Your task to perform on an android device: set the timer Image 0: 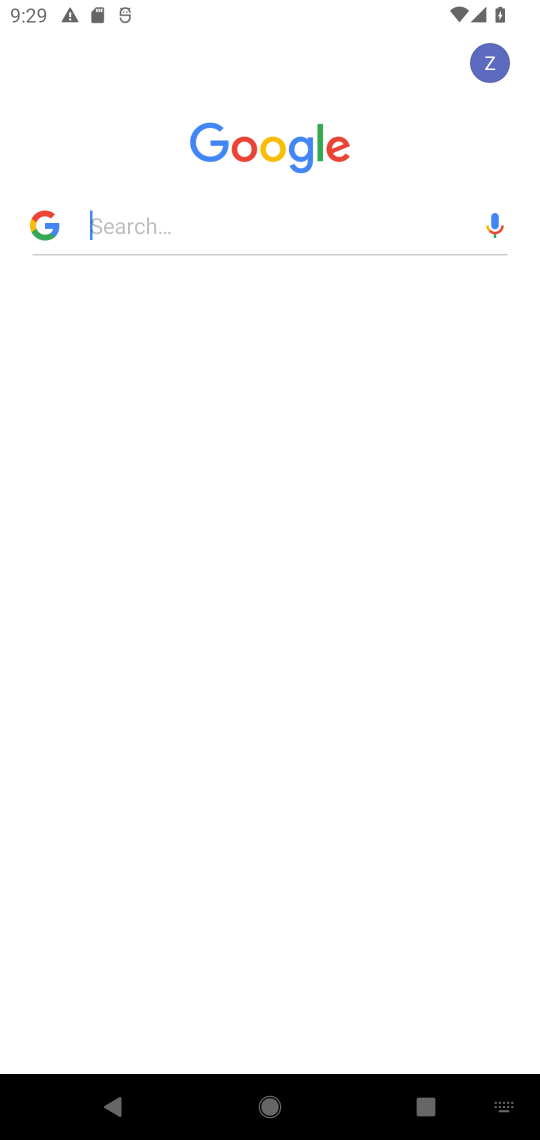
Step 0: press home button
Your task to perform on an android device: set the timer Image 1: 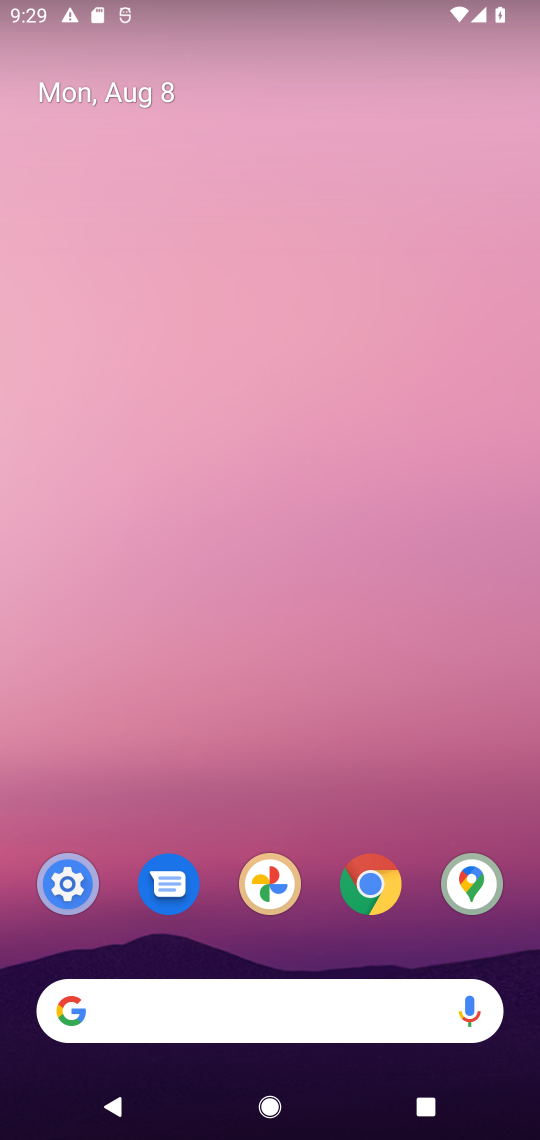
Step 1: drag from (290, 771) to (344, 108)
Your task to perform on an android device: set the timer Image 2: 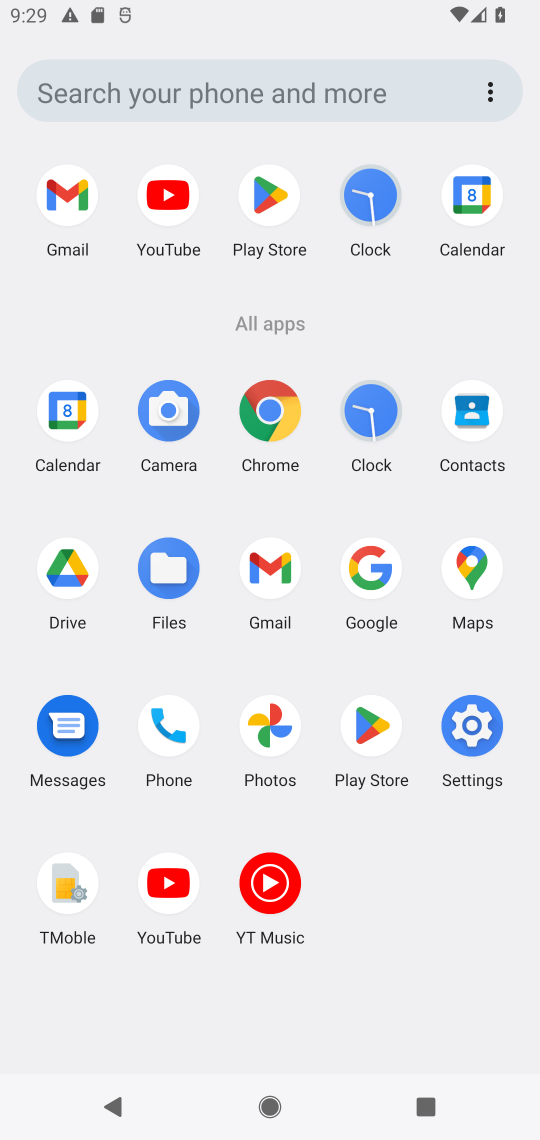
Step 2: click (374, 414)
Your task to perform on an android device: set the timer Image 3: 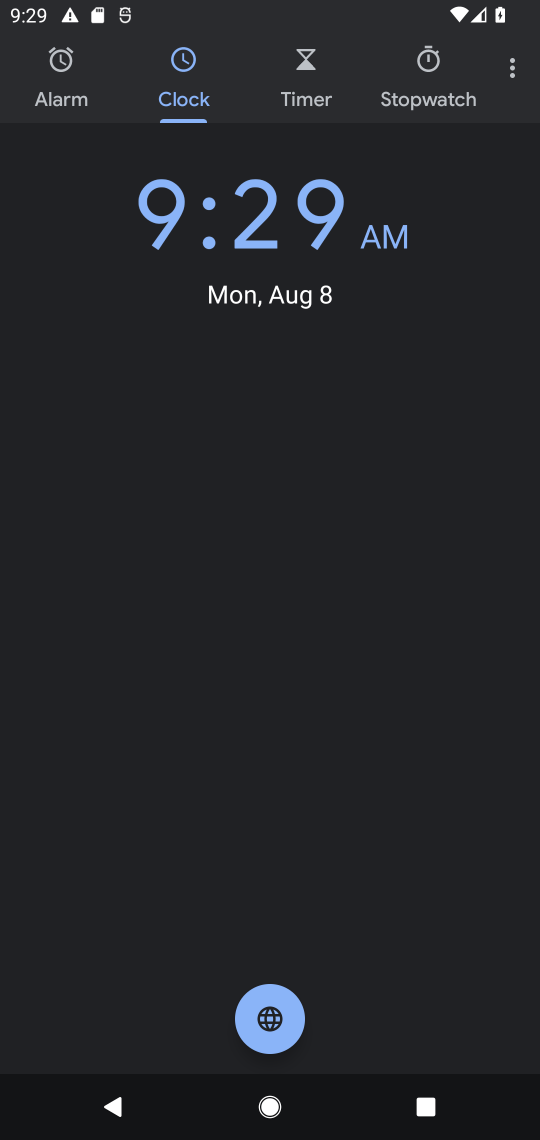
Step 3: click (304, 69)
Your task to perform on an android device: set the timer Image 4: 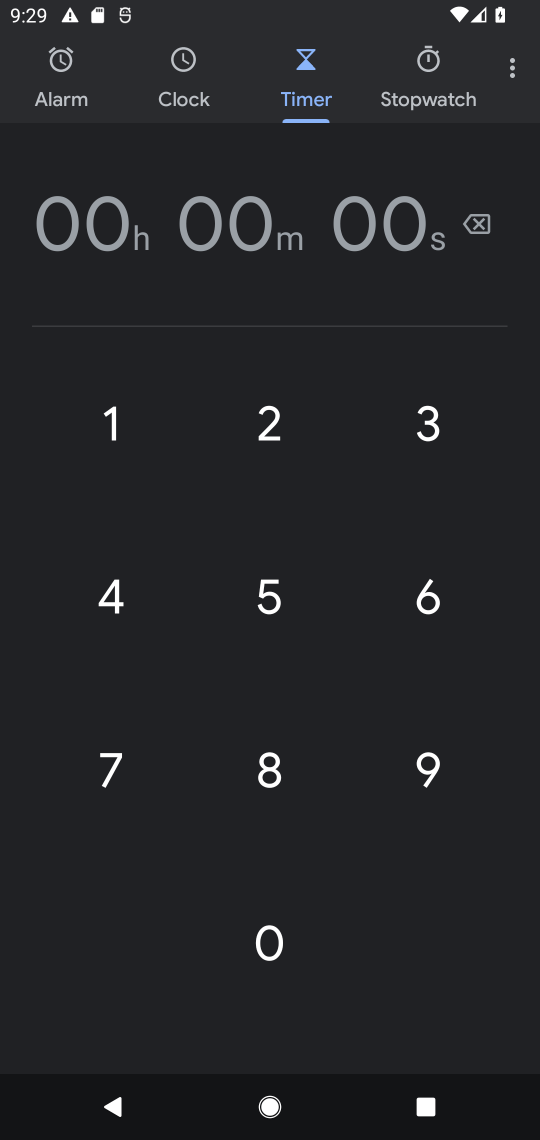
Step 4: click (115, 411)
Your task to perform on an android device: set the timer Image 5: 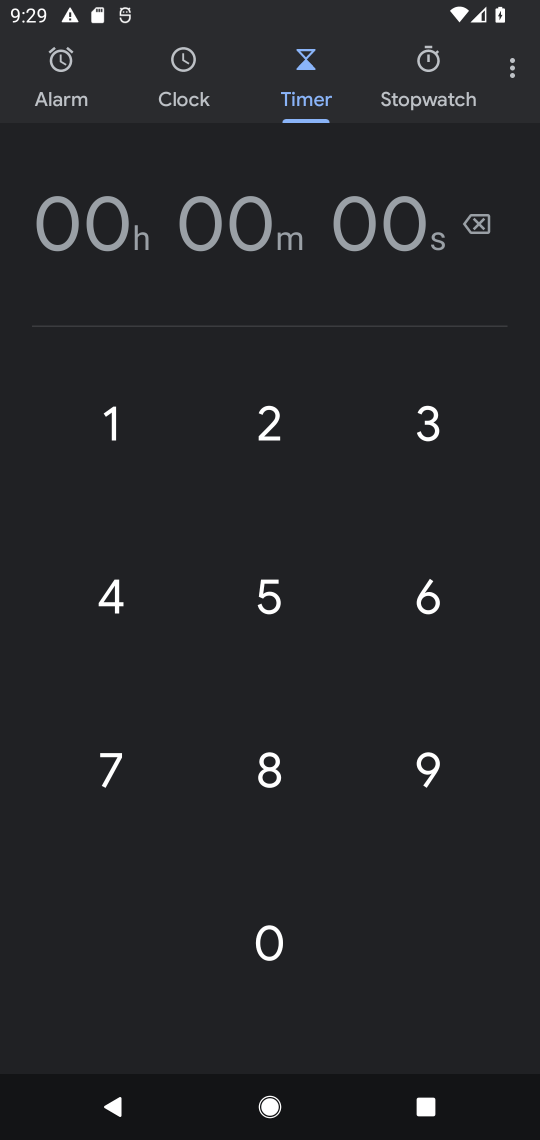
Step 5: click (115, 411)
Your task to perform on an android device: set the timer Image 6: 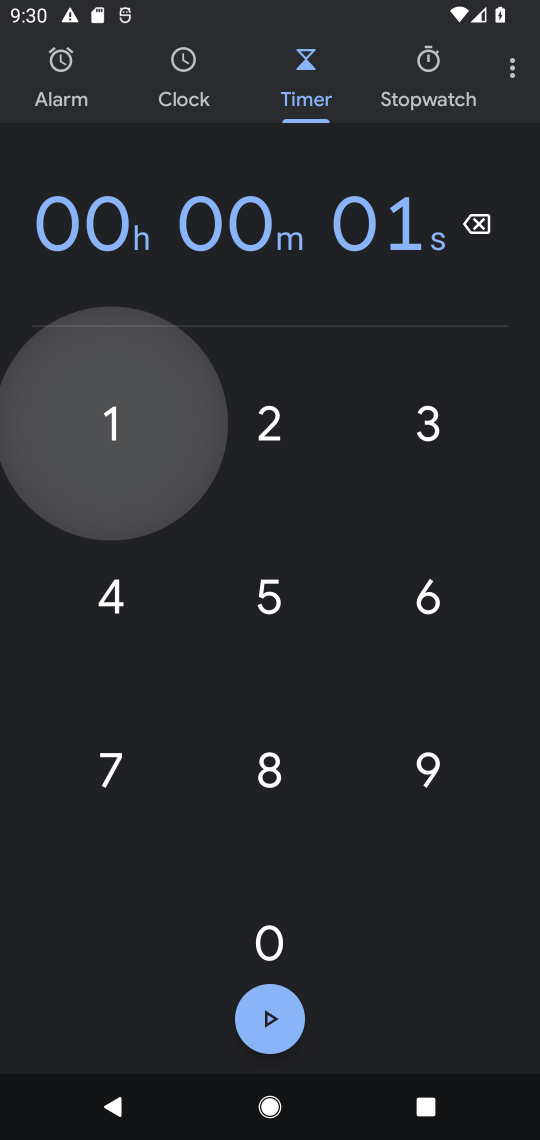
Step 6: click (115, 411)
Your task to perform on an android device: set the timer Image 7: 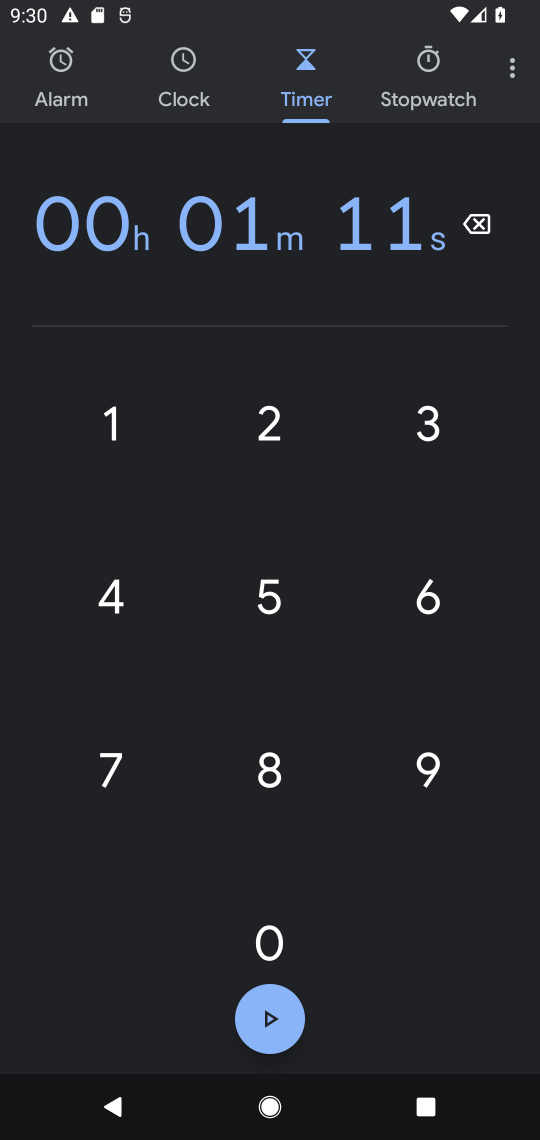
Step 7: click (115, 411)
Your task to perform on an android device: set the timer Image 8: 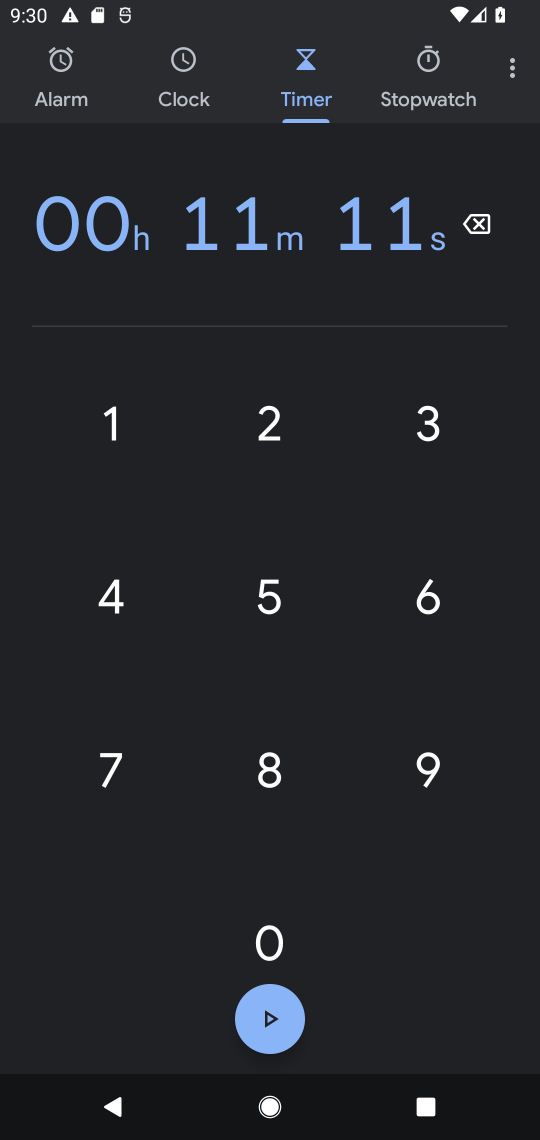
Step 8: click (115, 422)
Your task to perform on an android device: set the timer Image 9: 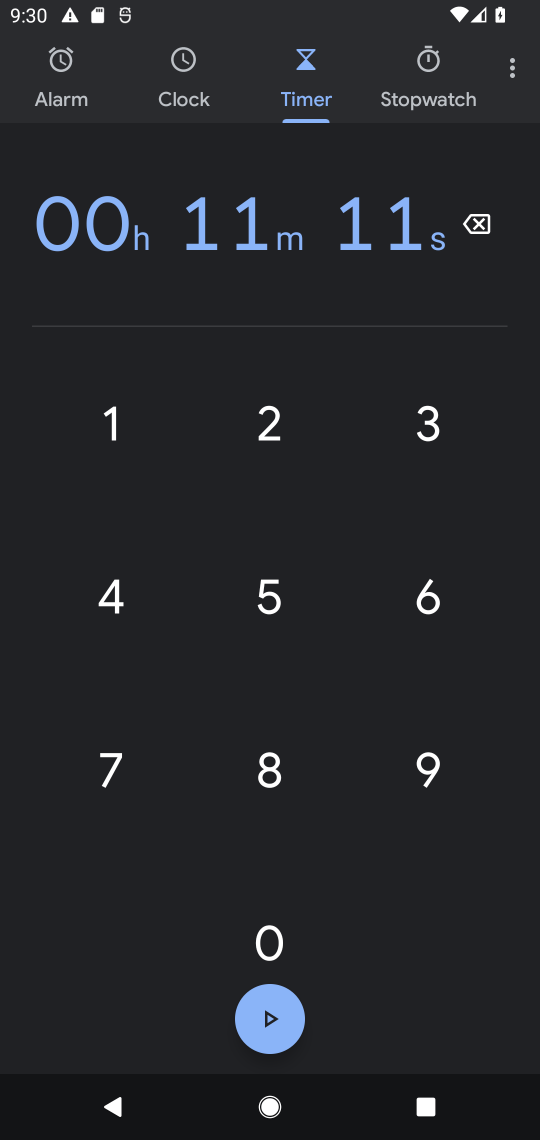
Step 9: click (115, 422)
Your task to perform on an android device: set the timer Image 10: 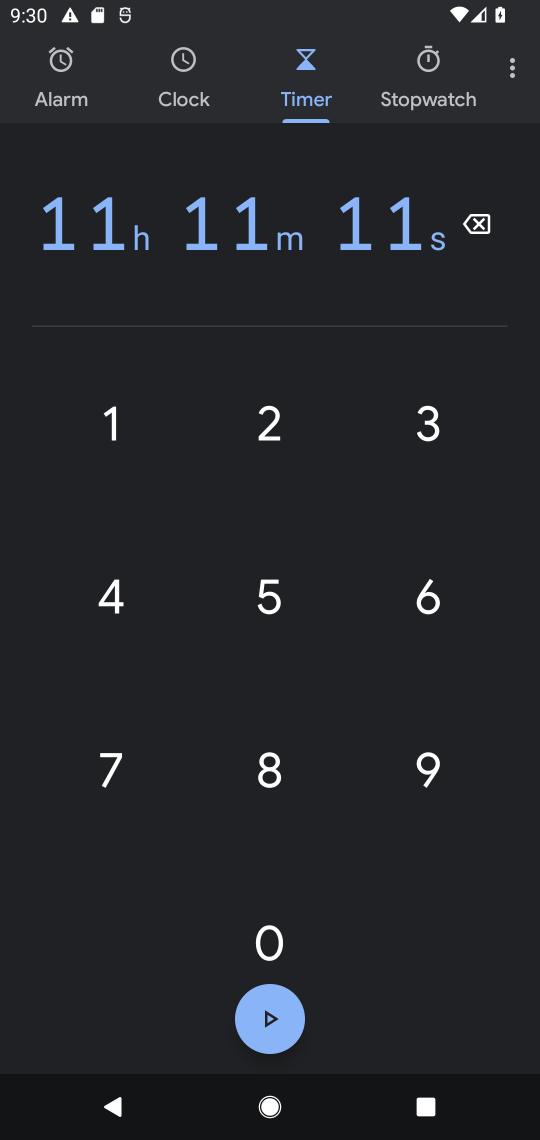
Step 10: task complete